Your task to perform on an android device: Open Chrome and go to settings Image 0: 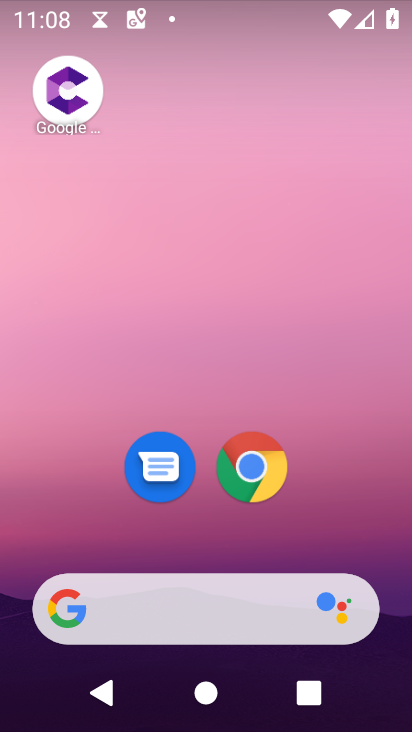
Step 0: click (247, 462)
Your task to perform on an android device: Open Chrome and go to settings Image 1: 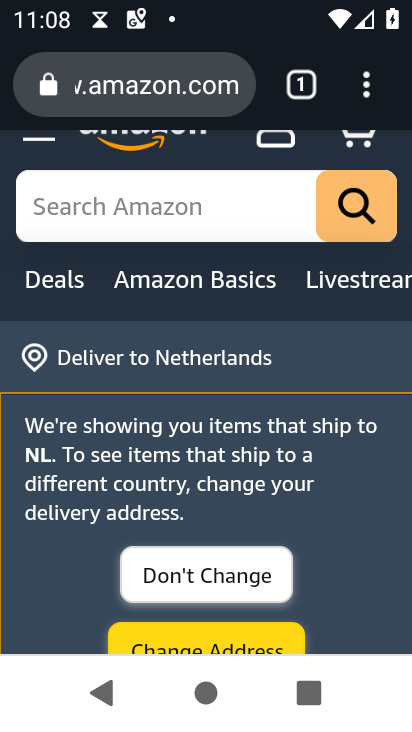
Step 1: click (370, 79)
Your task to perform on an android device: Open Chrome and go to settings Image 2: 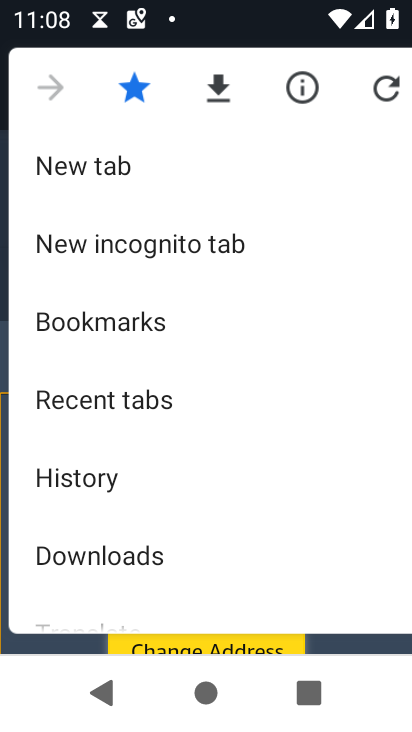
Step 2: click (368, 85)
Your task to perform on an android device: Open Chrome and go to settings Image 3: 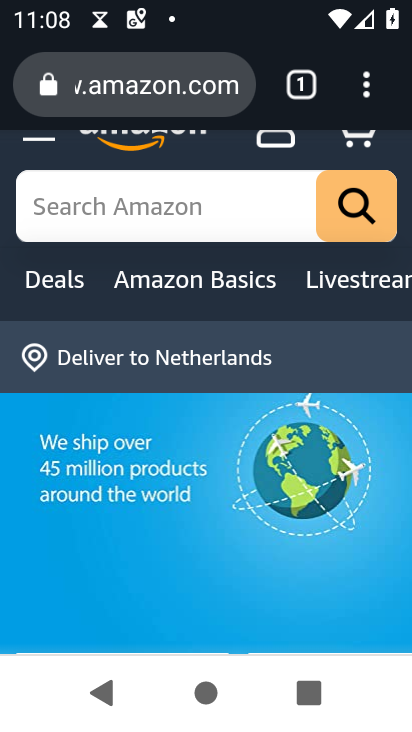
Step 3: click (362, 88)
Your task to perform on an android device: Open Chrome and go to settings Image 4: 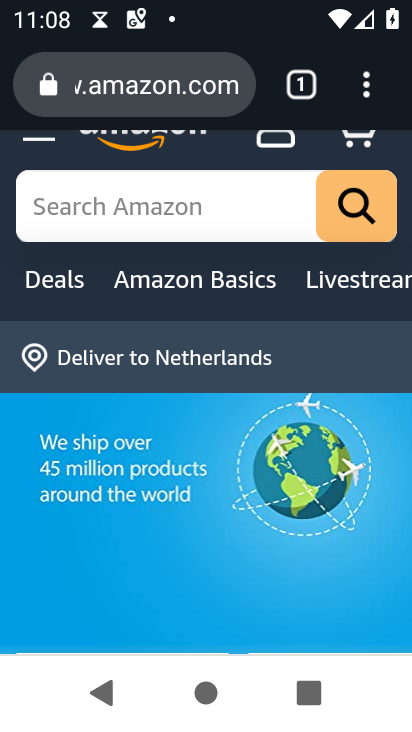
Step 4: click (376, 84)
Your task to perform on an android device: Open Chrome and go to settings Image 5: 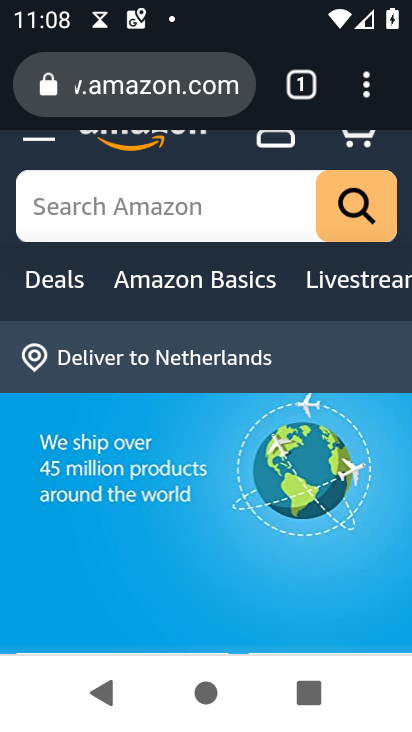
Step 5: click (363, 80)
Your task to perform on an android device: Open Chrome and go to settings Image 6: 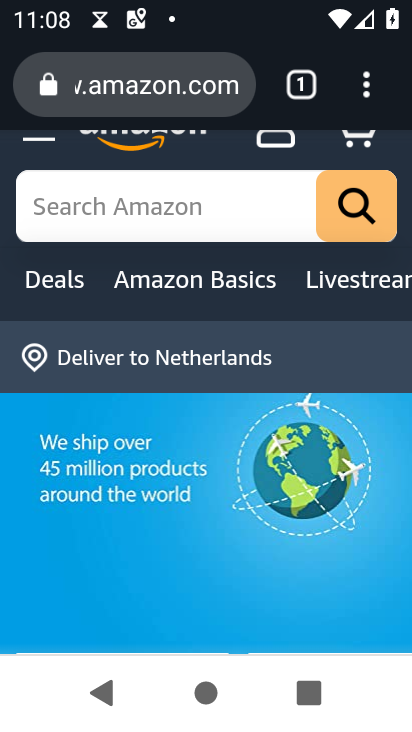
Step 6: click (366, 90)
Your task to perform on an android device: Open Chrome and go to settings Image 7: 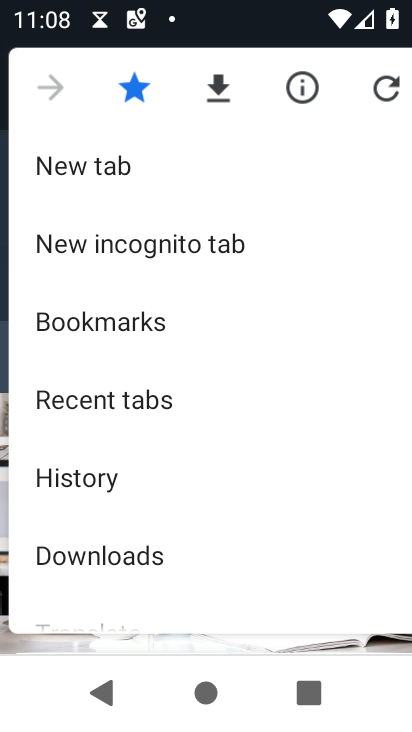
Step 7: drag from (153, 563) to (157, 188)
Your task to perform on an android device: Open Chrome and go to settings Image 8: 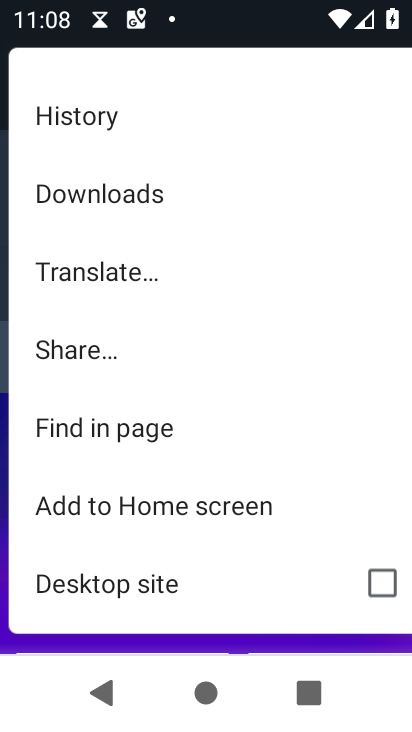
Step 8: drag from (96, 583) to (93, 303)
Your task to perform on an android device: Open Chrome and go to settings Image 9: 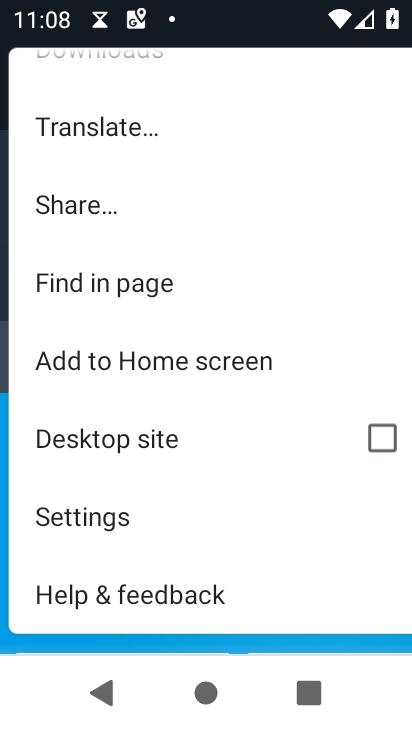
Step 9: drag from (149, 551) to (149, 246)
Your task to perform on an android device: Open Chrome and go to settings Image 10: 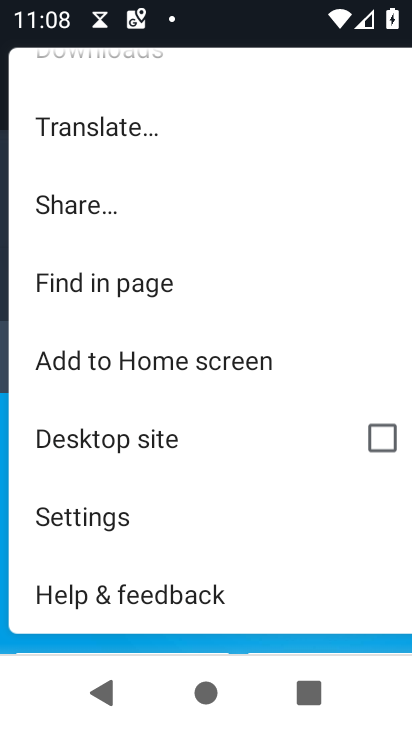
Step 10: click (112, 521)
Your task to perform on an android device: Open Chrome and go to settings Image 11: 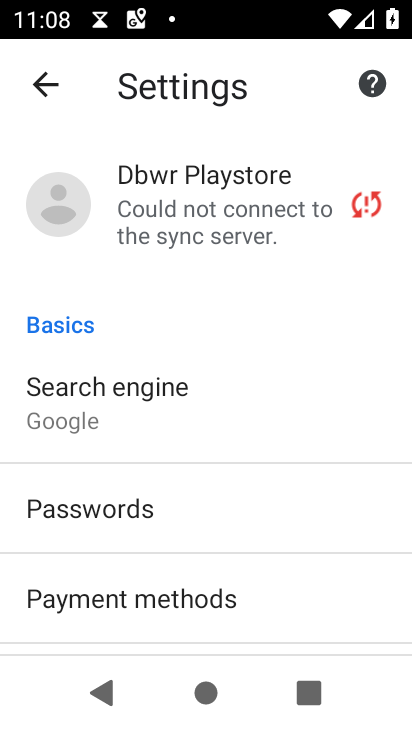
Step 11: task complete